Your task to perform on an android device: Open Google Chrome and click the shortcut for Amazon.com Image 0: 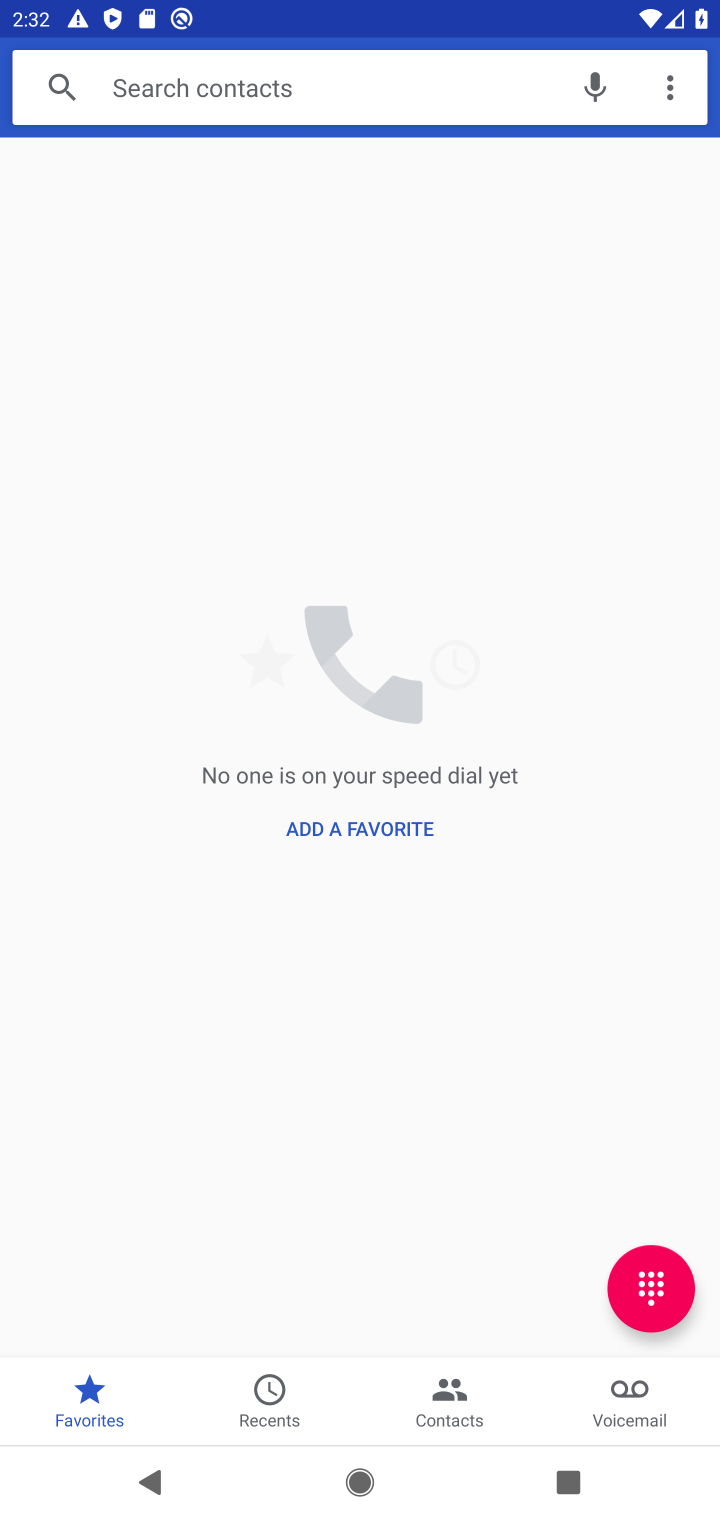
Step 0: press home button
Your task to perform on an android device: Open Google Chrome and click the shortcut for Amazon.com Image 1: 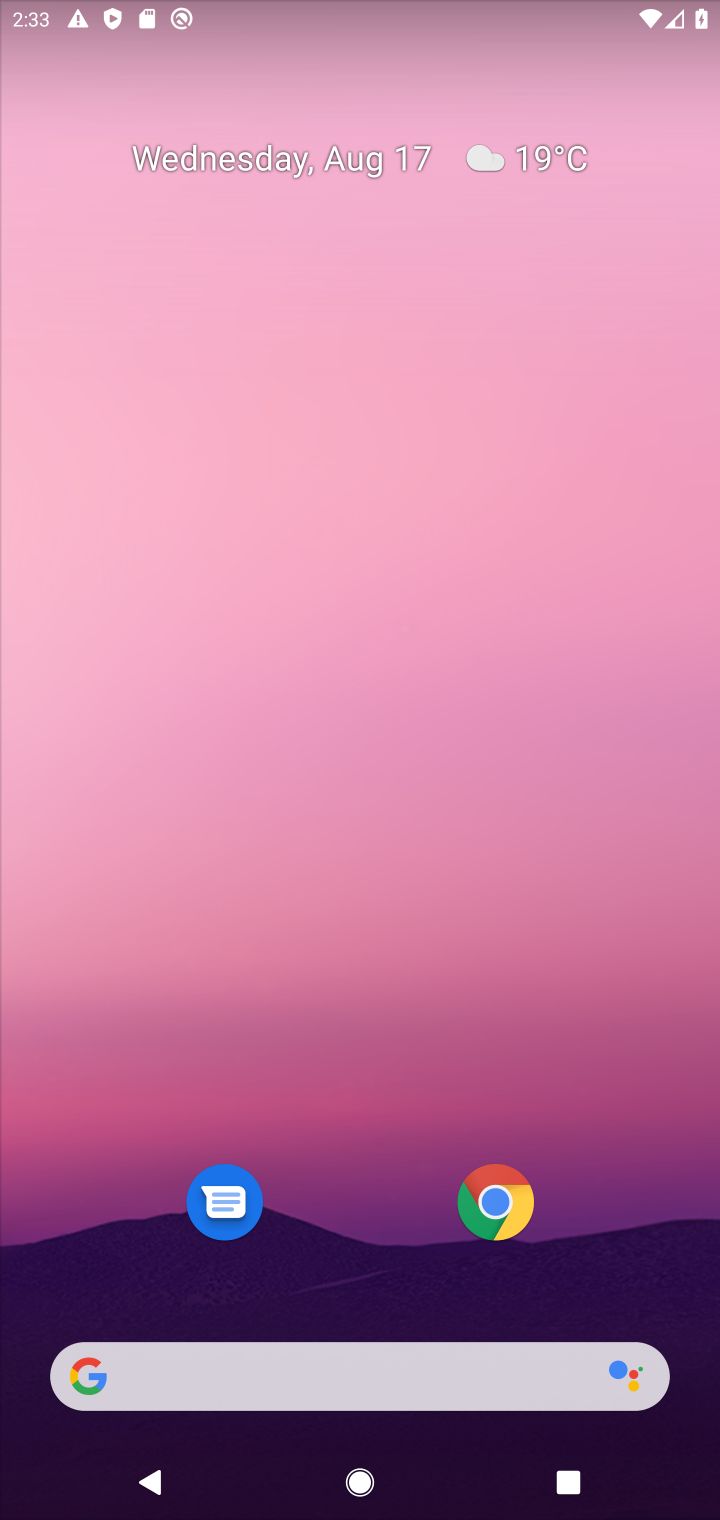
Step 1: click (485, 1209)
Your task to perform on an android device: Open Google Chrome and click the shortcut for Amazon.com Image 2: 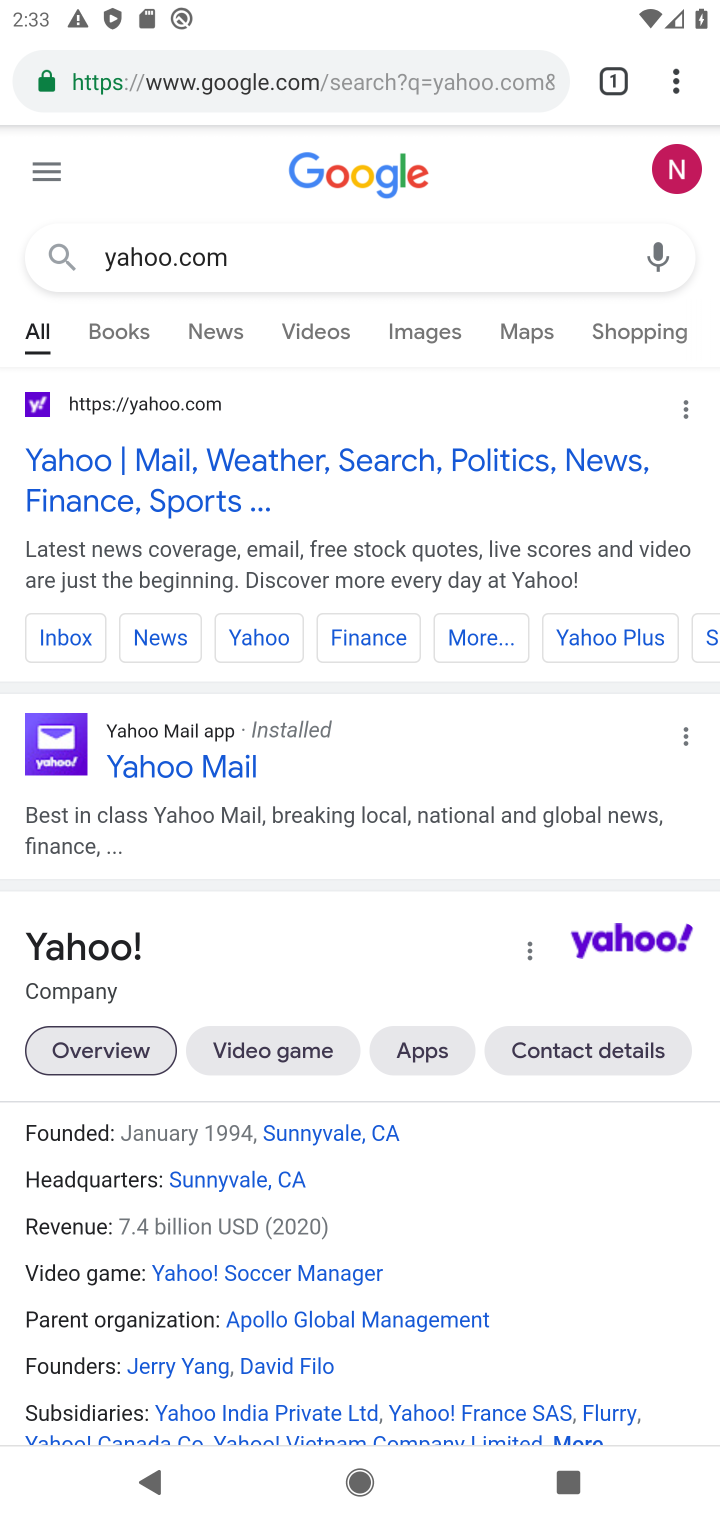
Step 2: click (610, 60)
Your task to perform on an android device: Open Google Chrome and click the shortcut for Amazon.com Image 3: 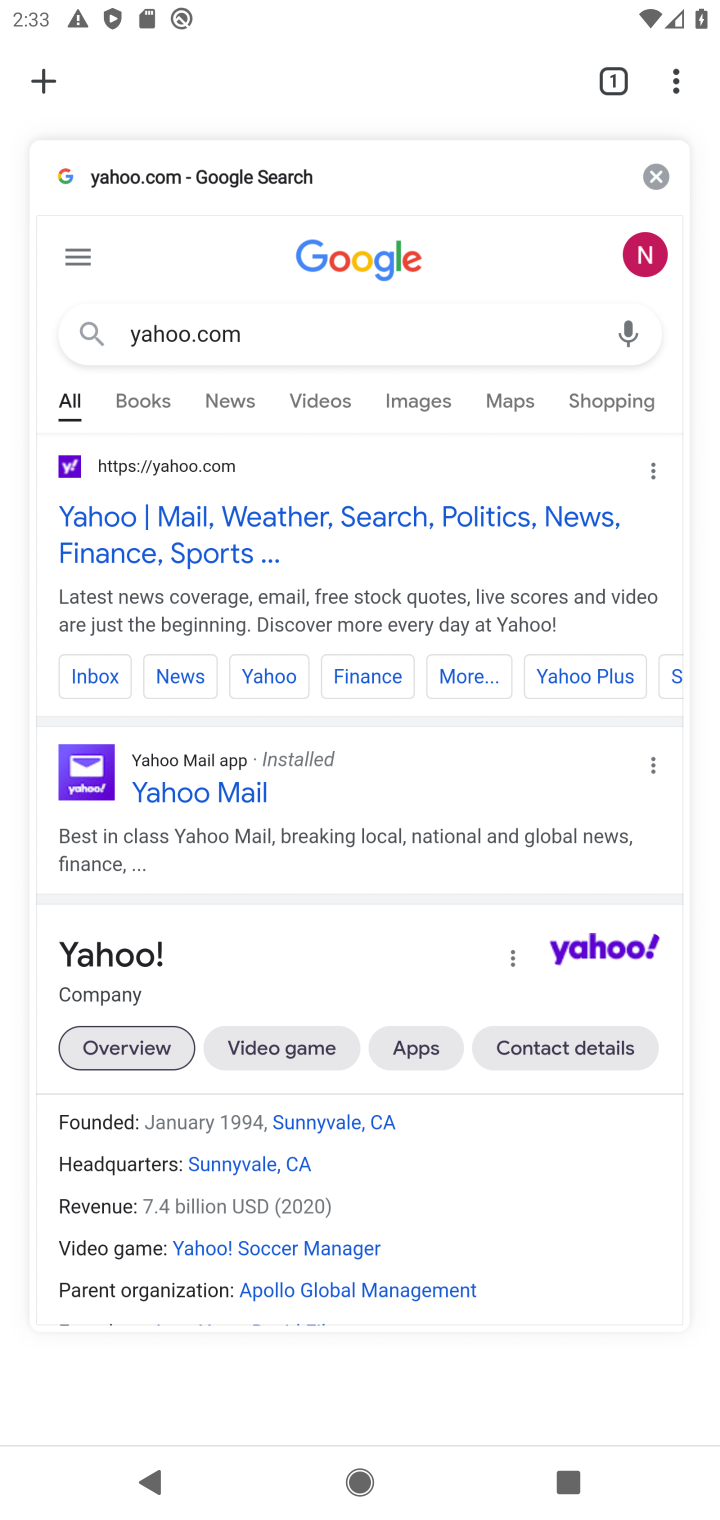
Step 3: click (47, 82)
Your task to perform on an android device: Open Google Chrome and click the shortcut for Amazon.com Image 4: 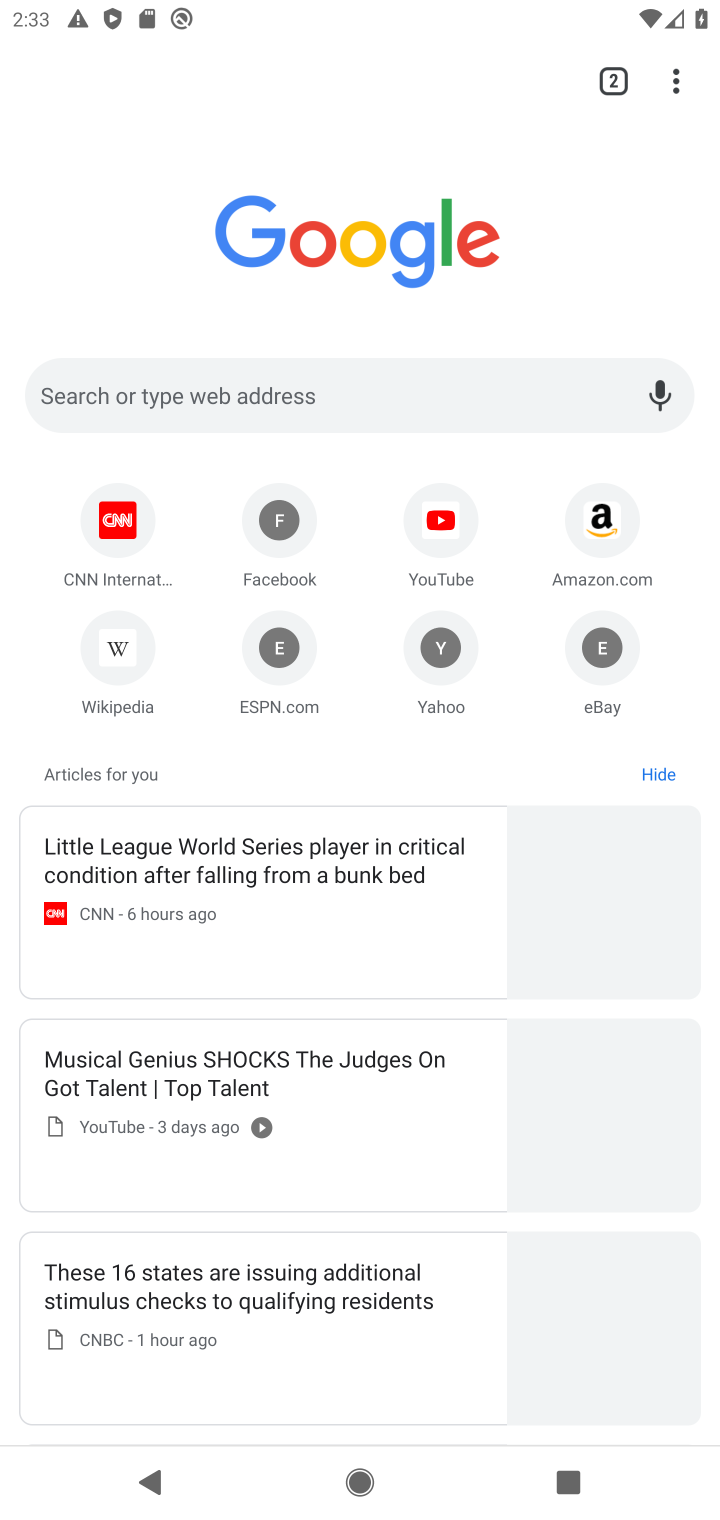
Step 4: click (612, 520)
Your task to perform on an android device: Open Google Chrome and click the shortcut for Amazon.com Image 5: 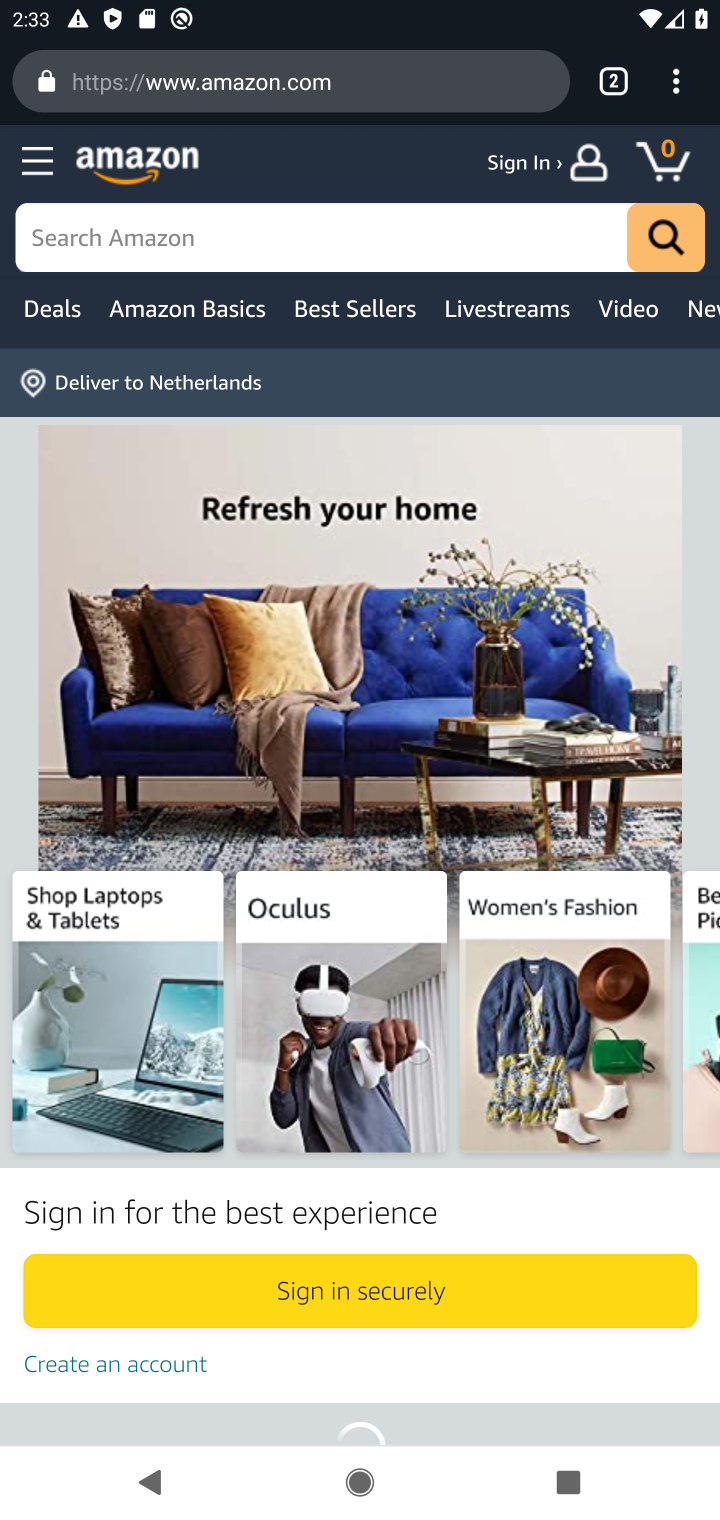
Step 5: task complete